Your task to perform on an android device: toggle notifications settings in the gmail app Image 0: 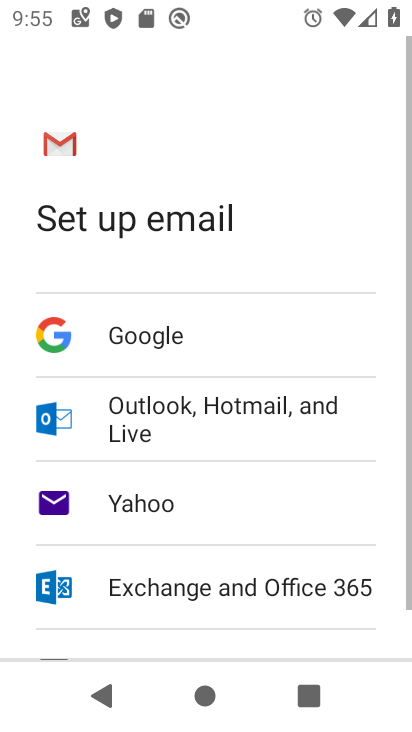
Step 0: press home button
Your task to perform on an android device: toggle notifications settings in the gmail app Image 1: 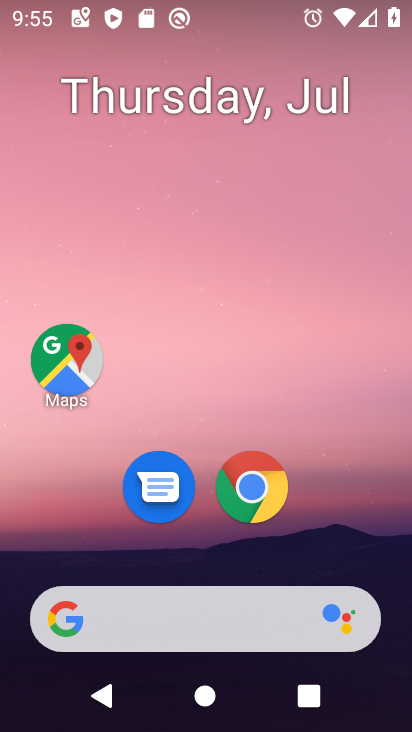
Step 1: drag from (211, 668) to (262, 286)
Your task to perform on an android device: toggle notifications settings in the gmail app Image 2: 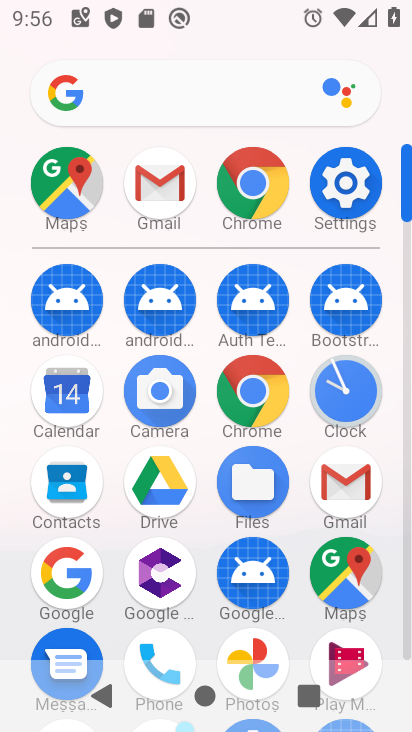
Step 2: click (357, 505)
Your task to perform on an android device: toggle notifications settings in the gmail app Image 3: 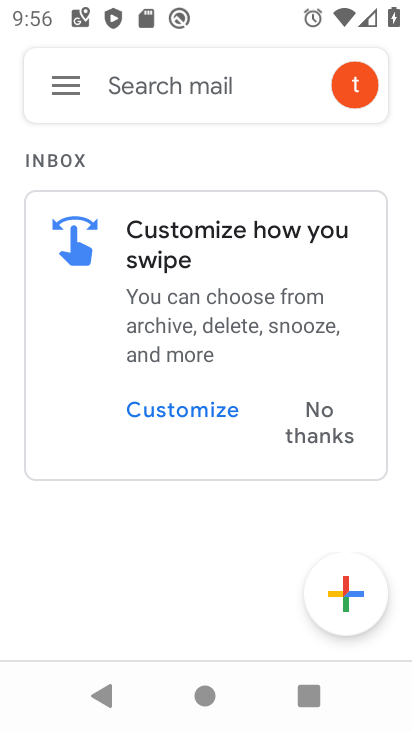
Step 3: click (75, 92)
Your task to perform on an android device: toggle notifications settings in the gmail app Image 4: 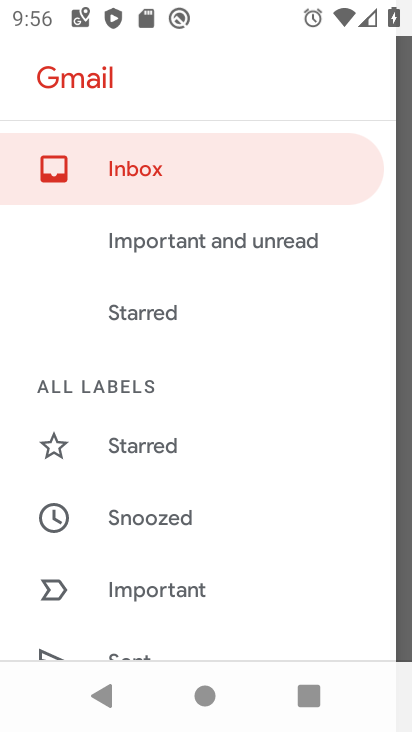
Step 4: drag from (135, 554) to (205, 172)
Your task to perform on an android device: toggle notifications settings in the gmail app Image 5: 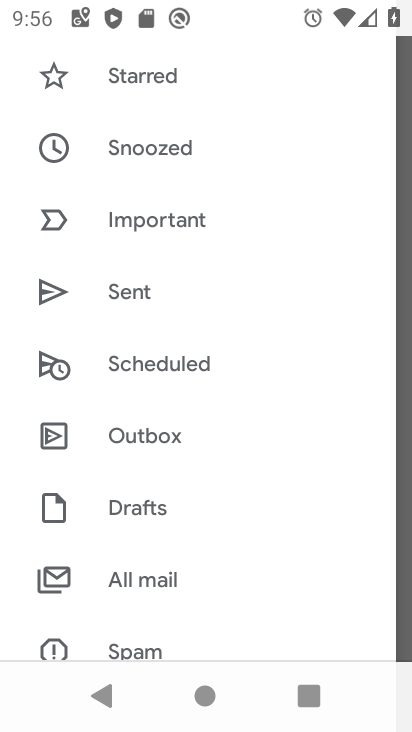
Step 5: drag from (154, 573) to (227, 178)
Your task to perform on an android device: toggle notifications settings in the gmail app Image 6: 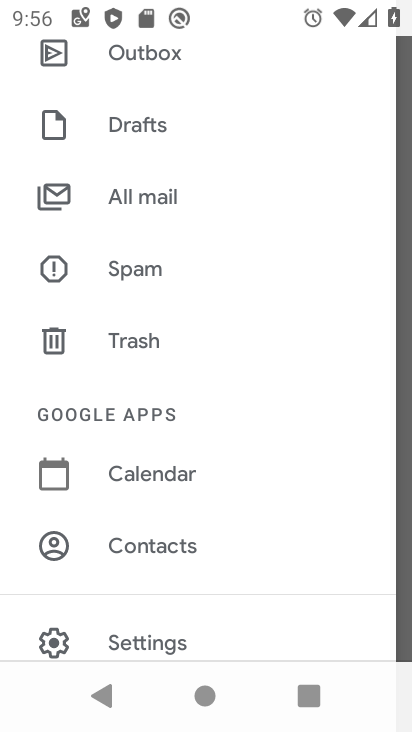
Step 6: click (130, 646)
Your task to perform on an android device: toggle notifications settings in the gmail app Image 7: 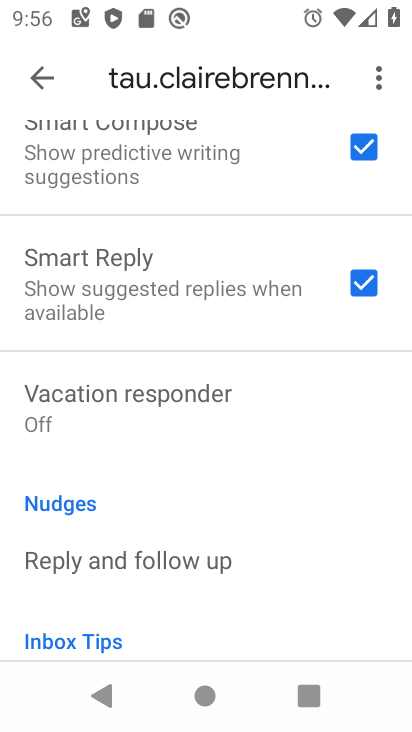
Step 7: drag from (233, 357) to (241, 312)
Your task to perform on an android device: toggle notifications settings in the gmail app Image 8: 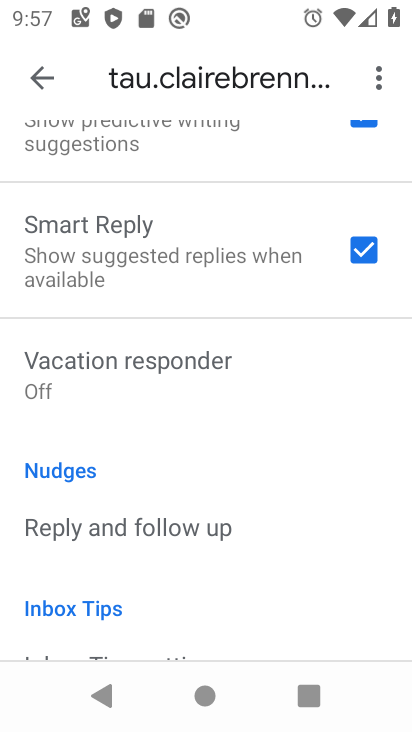
Step 8: click (38, 88)
Your task to perform on an android device: toggle notifications settings in the gmail app Image 9: 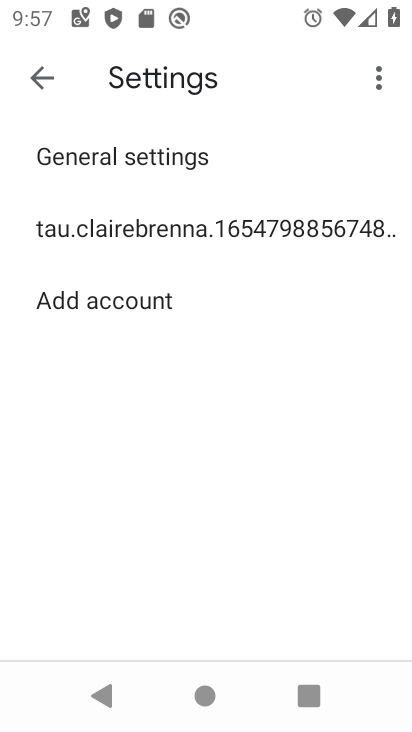
Step 9: click (150, 151)
Your task to perform on an android device: toggle notifications settings in the gmail app Image 10: 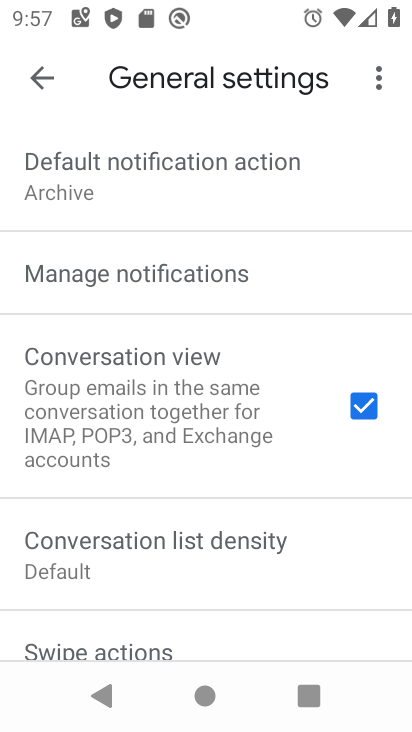
Step 10: click (224, 291)
Your task to perform on an android device: toggle notifications settings in the gmail app Image 11: 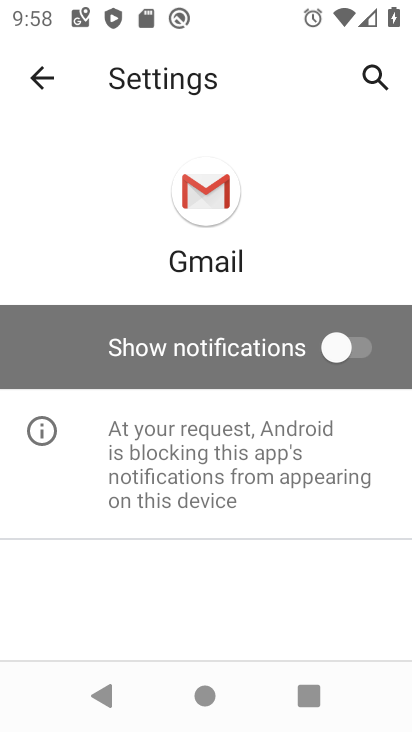
Step 11: click (269, 337)
Your task to perform on an android device: toggle notifications settings in the gmail app Image 12: 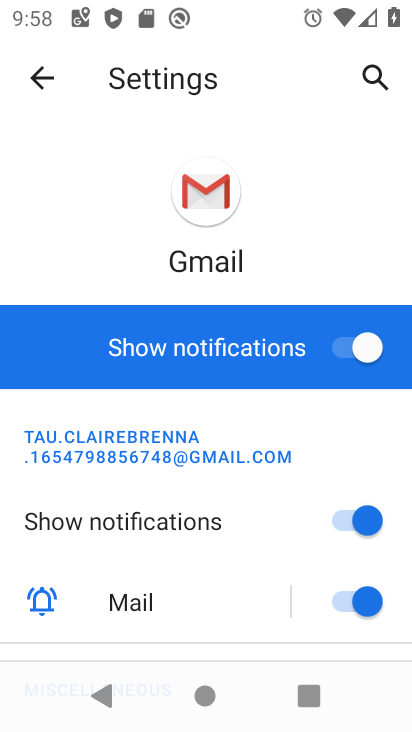
Step 12: task complete